Your task to perform on an android device: Go to location settings Image 0: 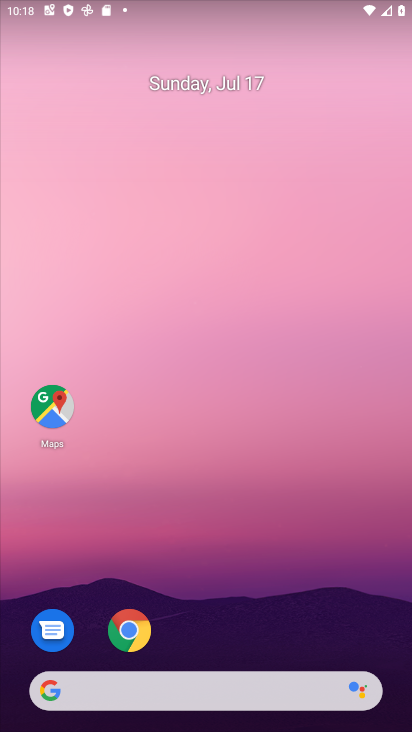
Step 0: drag from (254, 636) to (230, 158)
Your task to perform on an android device: Go to location settings Image 1: 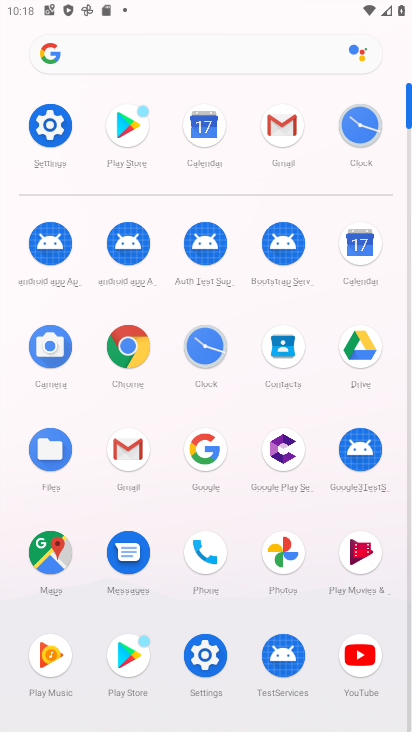
Step 1: click (55, 132)
Your task to perform on an android device: Go to location settings Image 2: 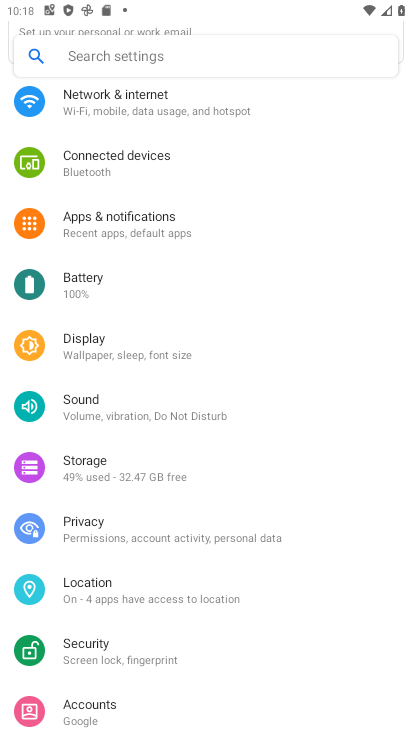
Step 2: click (195, 590)
Your task to perform on an android device: Go to location settings Image 3: 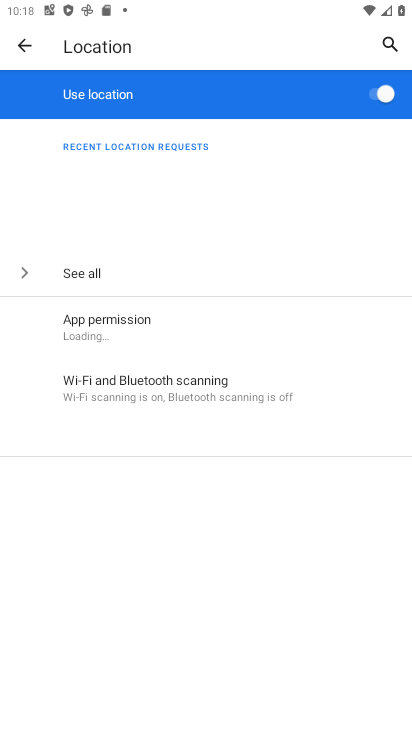
Step 3: task complete